Your task to perform on an android device: toggle airplane mode Image 0: 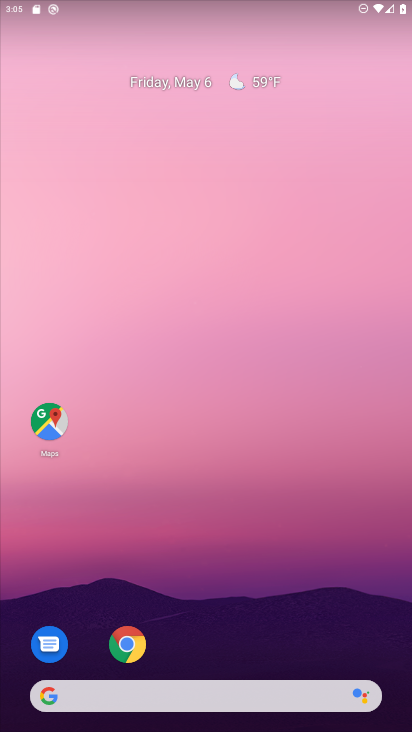
Step 0: drag from (208, 715) to (210, 291)
Your task to perform on an android device: toggle airplane mode Image 1: 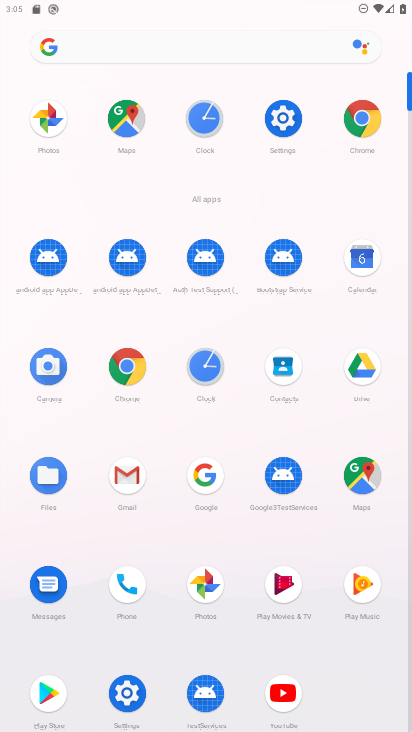
Step 1: click (285, 117)
Your task to perform on an android device: toggle airplane mode Image 2: 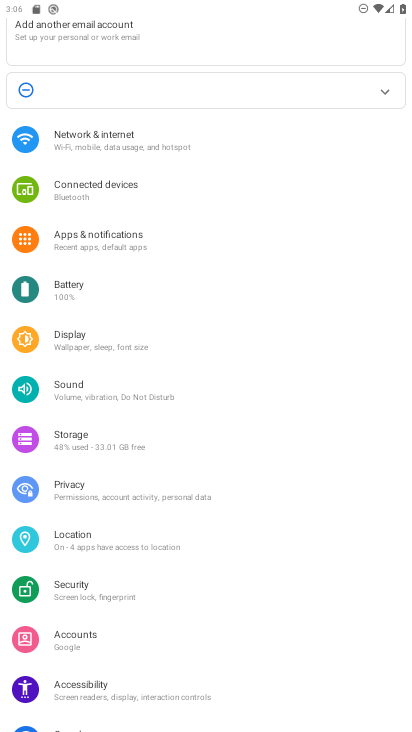
Step 2: click (109, 143)
Your task to perform on an android device: toggle airplane mode Image 3: 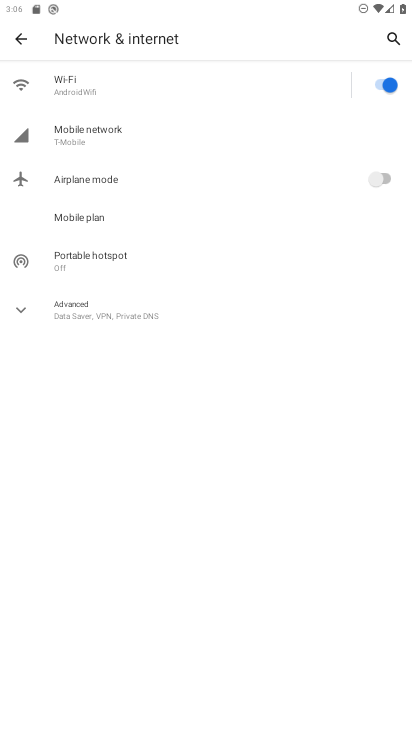
Step 3: click (388, 176)
Your task to perform on an android device: toggle airplane mode Image 4: 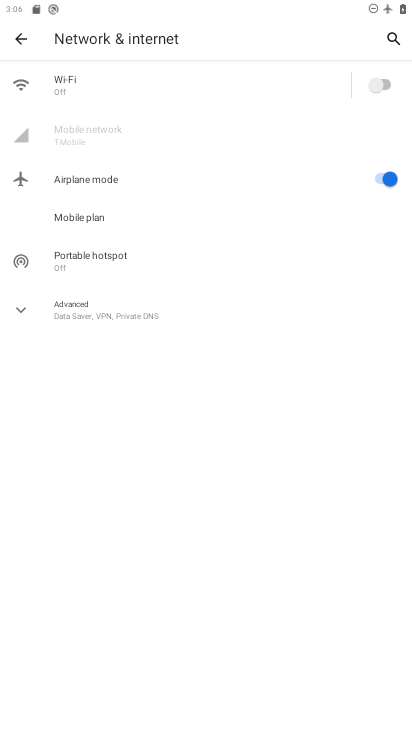
Step 4: task complete